Your task to perform on an android device: Go to display settings Image 0: 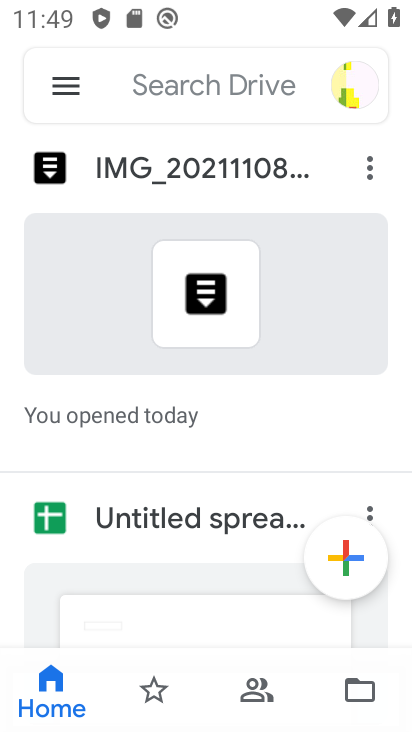
Step 0: press home button
Your task to perform on an android device: Go to display settings Image 1: 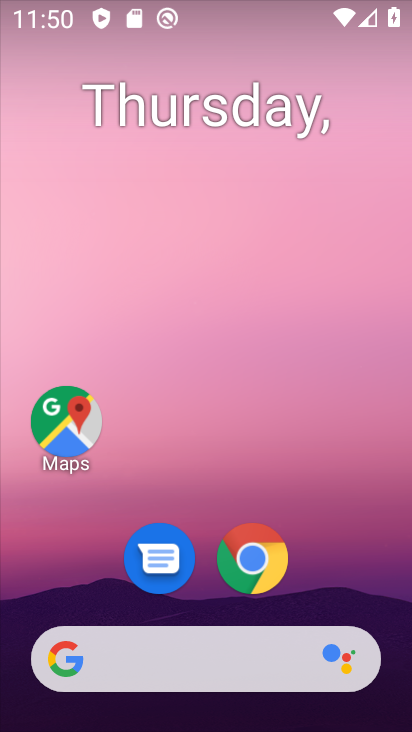
Step 1: drag from (361, 593) to (253, 27)
Your task to perform on an android device: Go to display settings Image 2: 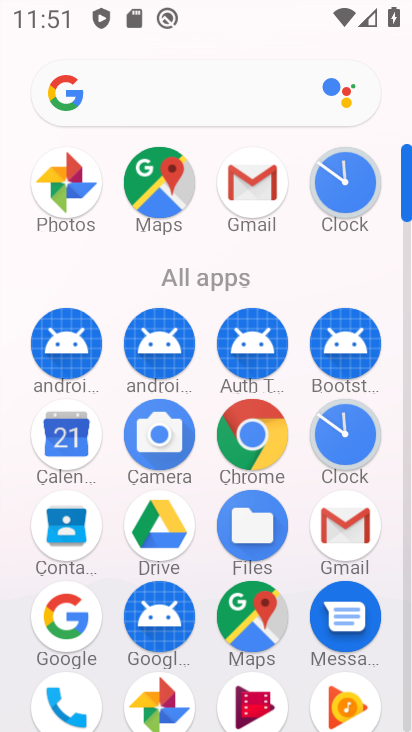
Step 2: drag from (209, 658) to (200, 110)
Your task to perform on an android device: Go to display settings Image 3: 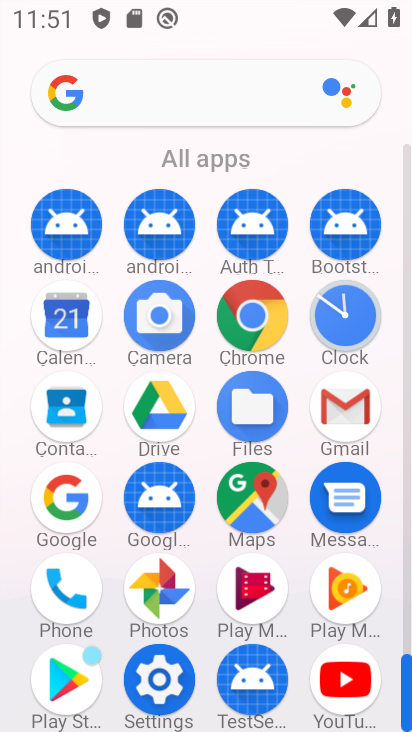
Step 3: click (149, 670)
Your task to perform on an android device: Go to display settings Image 4: 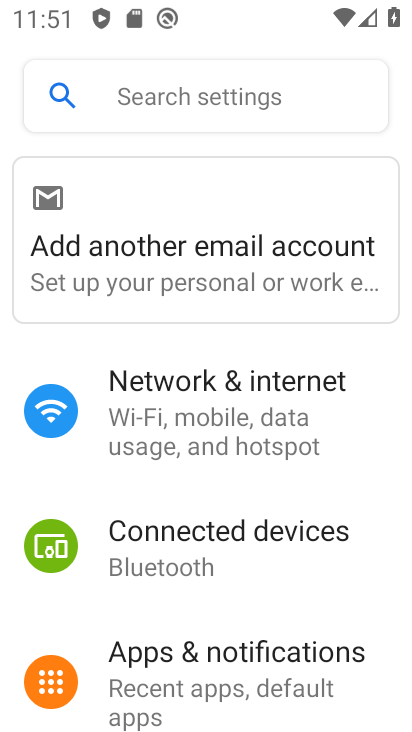
Step 4: drag from (199, 660) to (267, 175)
Your task to perform on an android device: Go to display settings Image 5: 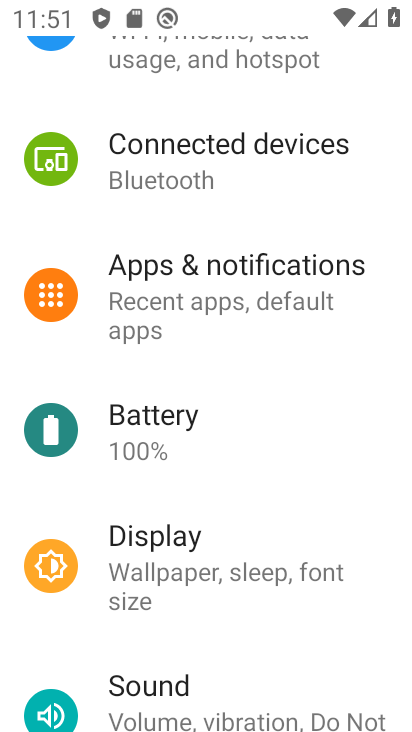
Step 5: click (192, 546)
Your task to perform on an android device: Go to display settings Image 6: 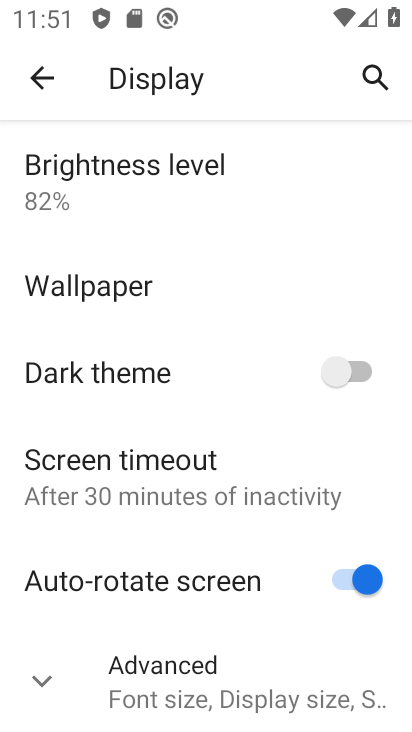
Step 6: task complete